Your task to perform on an android device: visit the assistant section in the google photos Image 0: 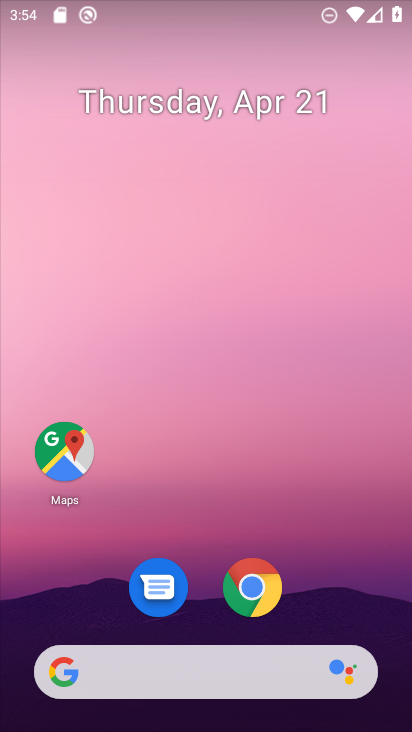
Step 0: drag from (385, 624) to (385, 1)
Your task to perform on an android device: visit the assistant section in the google photos Image 1: 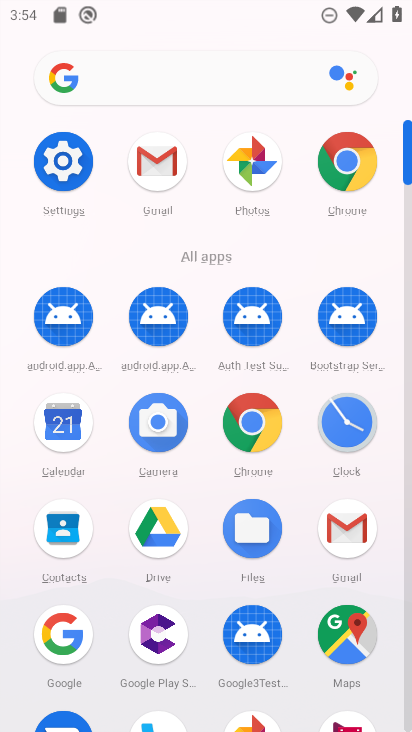
Step 1: click (246, 166)
Your task to perform on an android device: visit the assistant section in the google photos Image 2: 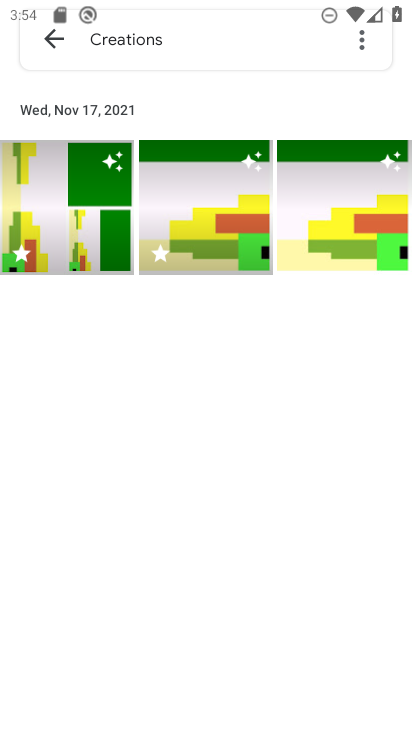
Step 2: click (51, 41)
Your task to perform on an android device: visit the assistant section in the google photos Image 3: 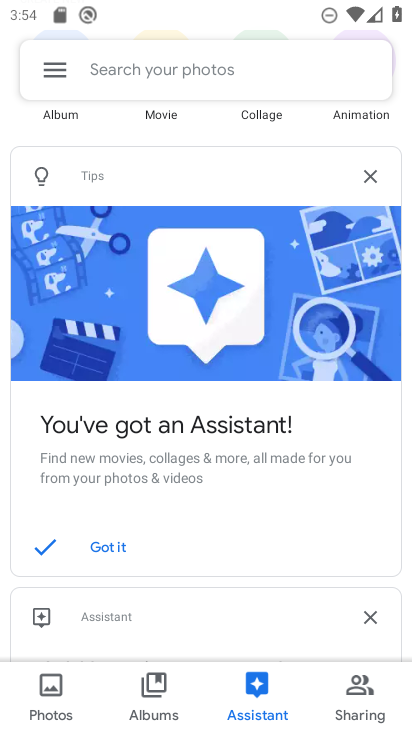
Step 3: click (252, 696)
Your task to perform on an android device: visit the assistant section in the google photos Image 4: 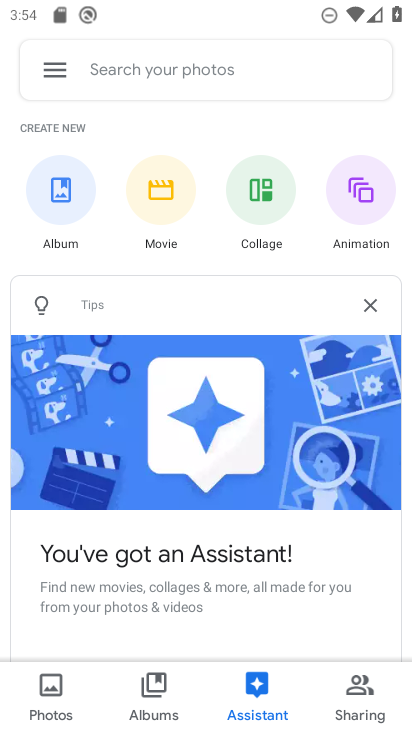
Step 4: task complete